Your task to perform on an android device: Go to Amazon Image 0: 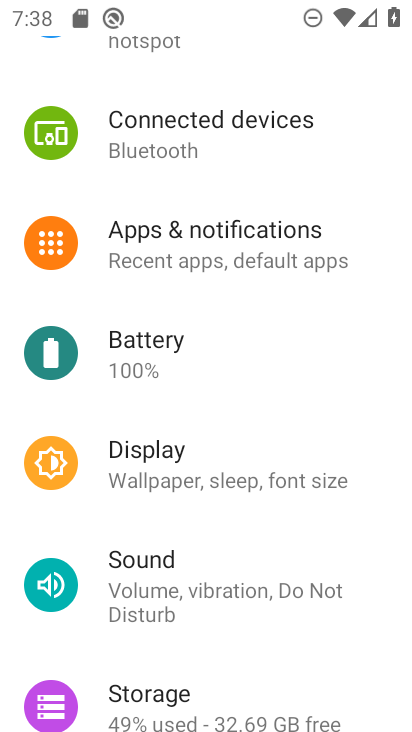
Step 0: press home button
Your task to perform on an android device: Go to Amazon Image 1: 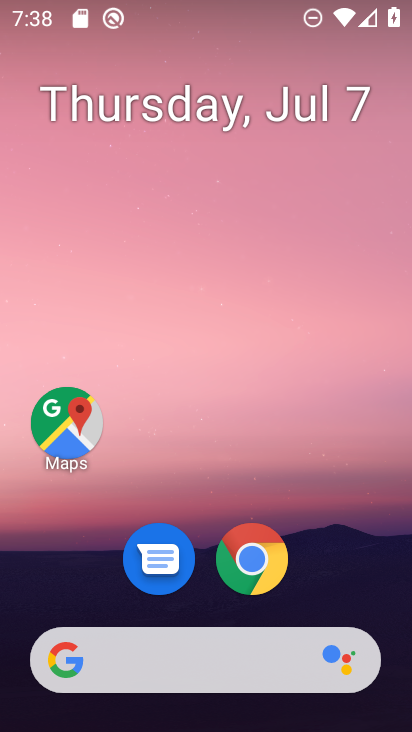
Step 1: click (260, 544)
Your task to perform on an android device: Go to Amazon Image 2: 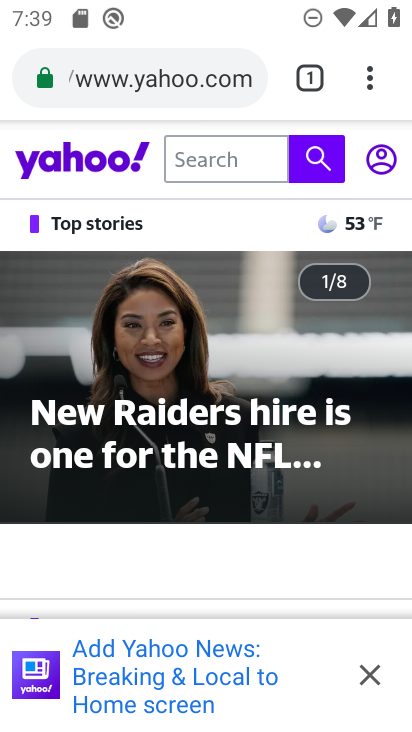
Step 2: drag from (372, 77) to (184, 153)
Your task to perform on an android device: Go to Amazon Image 3: 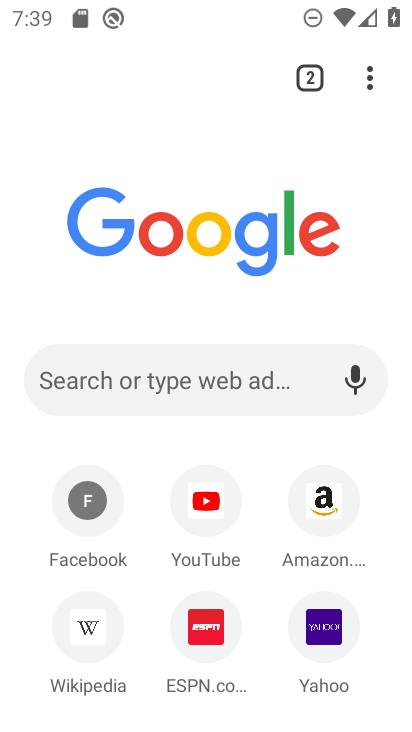
Step 3: click (334, 500)
Your task to perform on an android device: Go to Amazon Image 4: 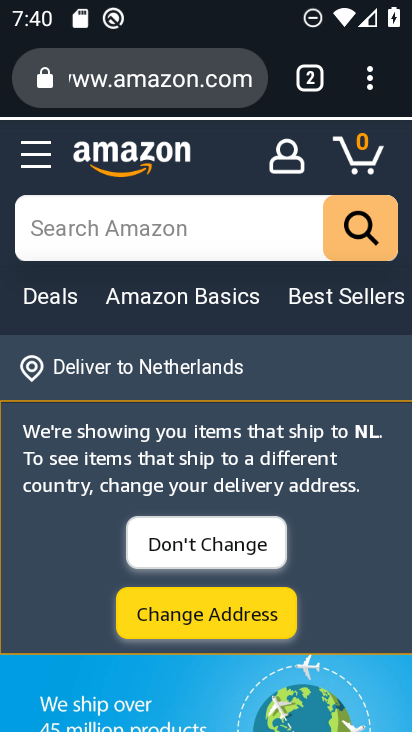
Step 4: task complete